Your task to perform on an android device: Check the weather Image 0: 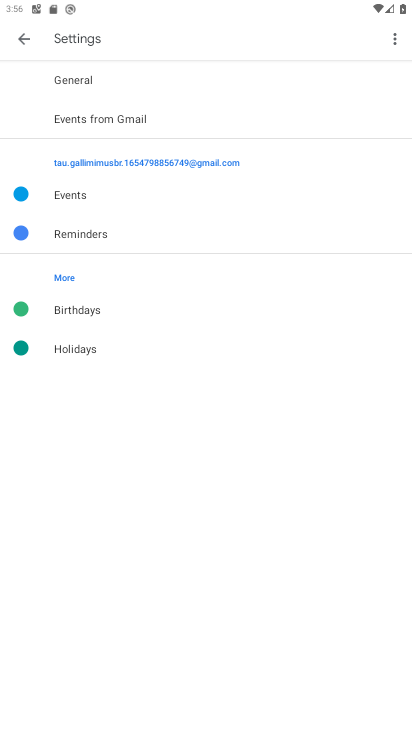
Step 0: press home button
Your task to perform on an android device: Check the weather Image 1: 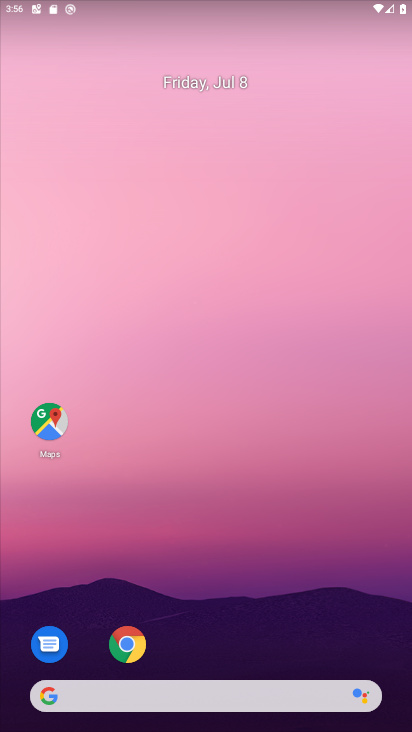
Step 1: task complete